Your task to perform on an android device: install app "Google Duo" Image 0: 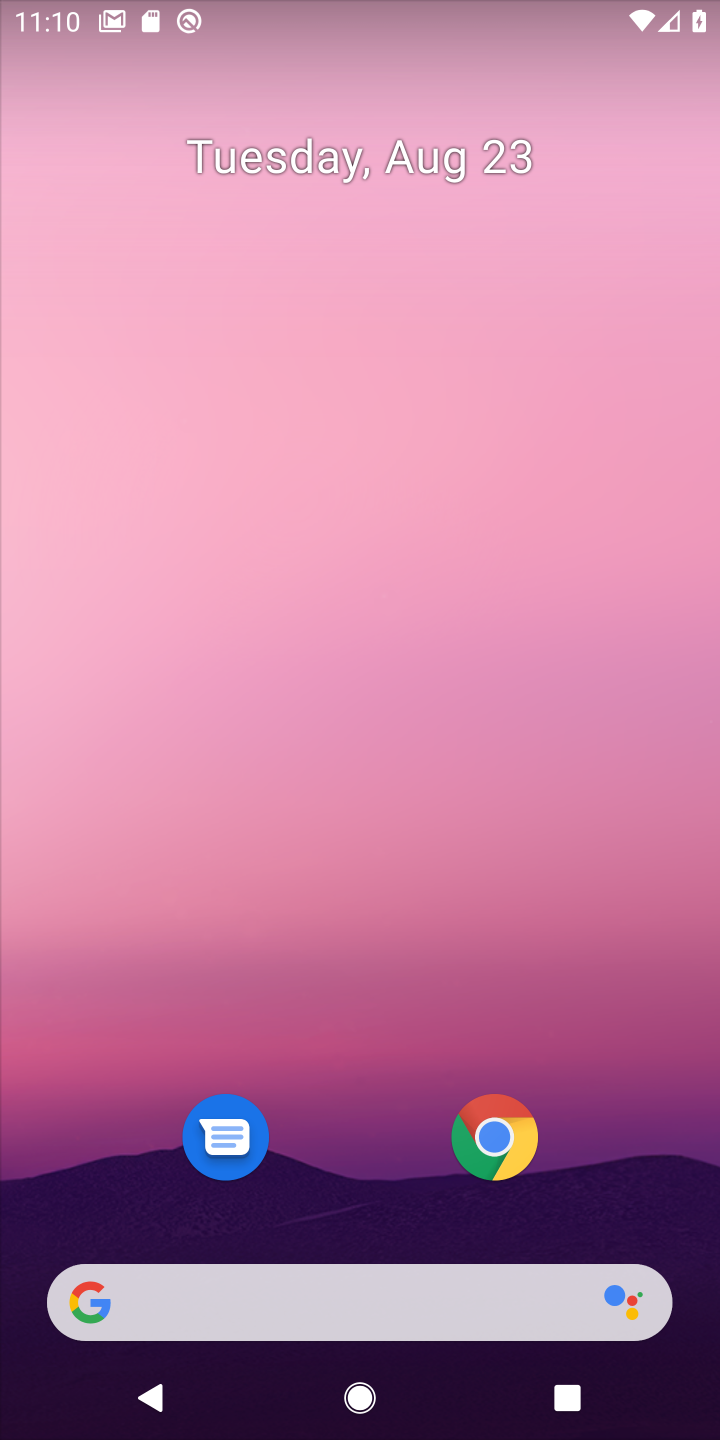
Step 0: press home button
Your task to perform on an android device: install app "Google Duo" Image 1: 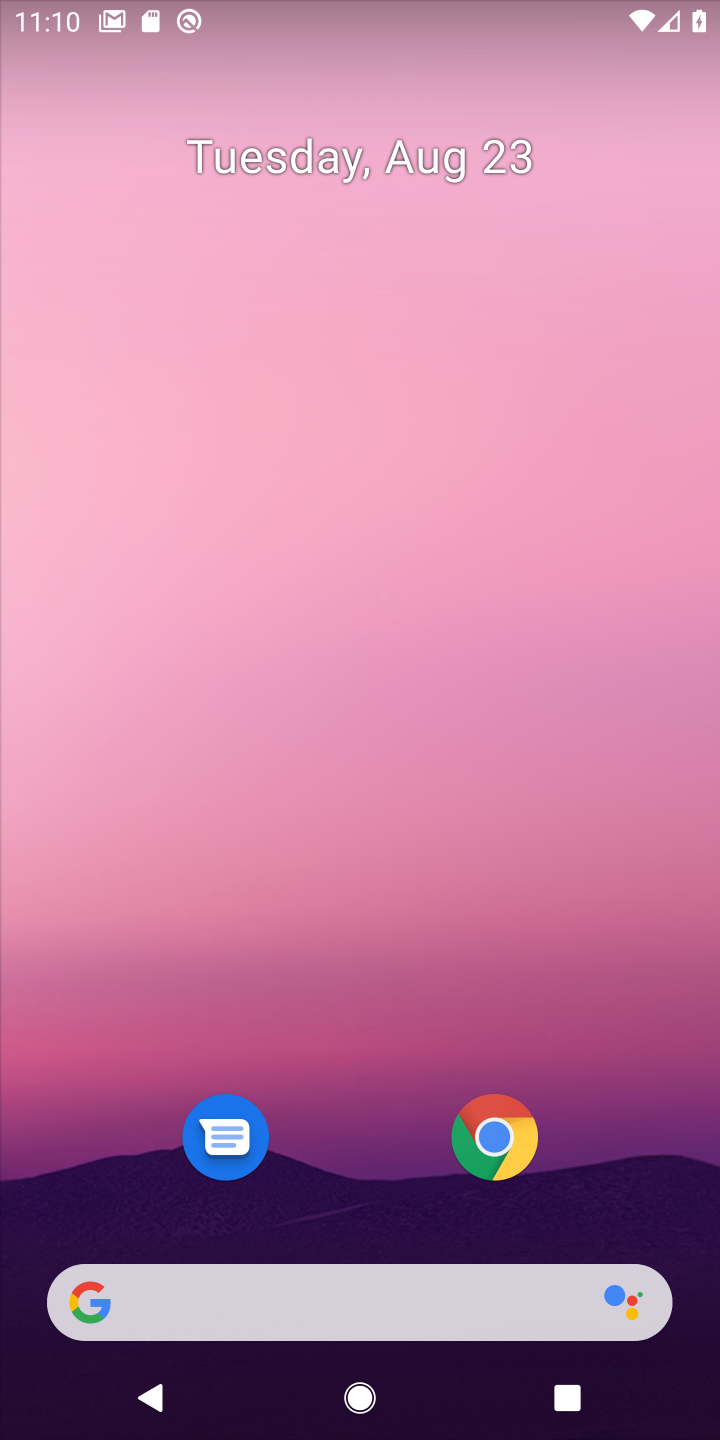
Step 1: drag from (363, 1117) to (415, 422)
Your task to perform on an android device: install app "Google Duo" Image 2: 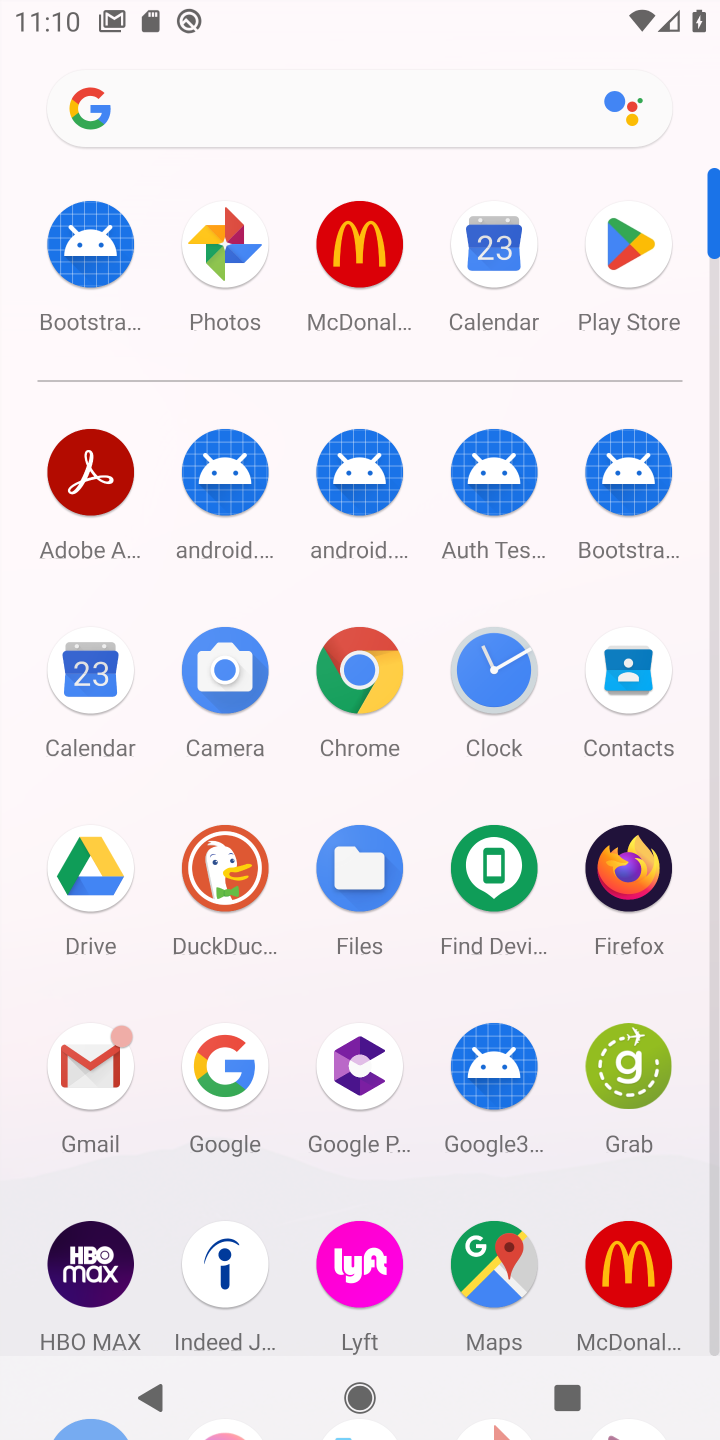
Step 2: click (642, 279)
Your task to perform on an android device: install app "Google Duo" Image 3: 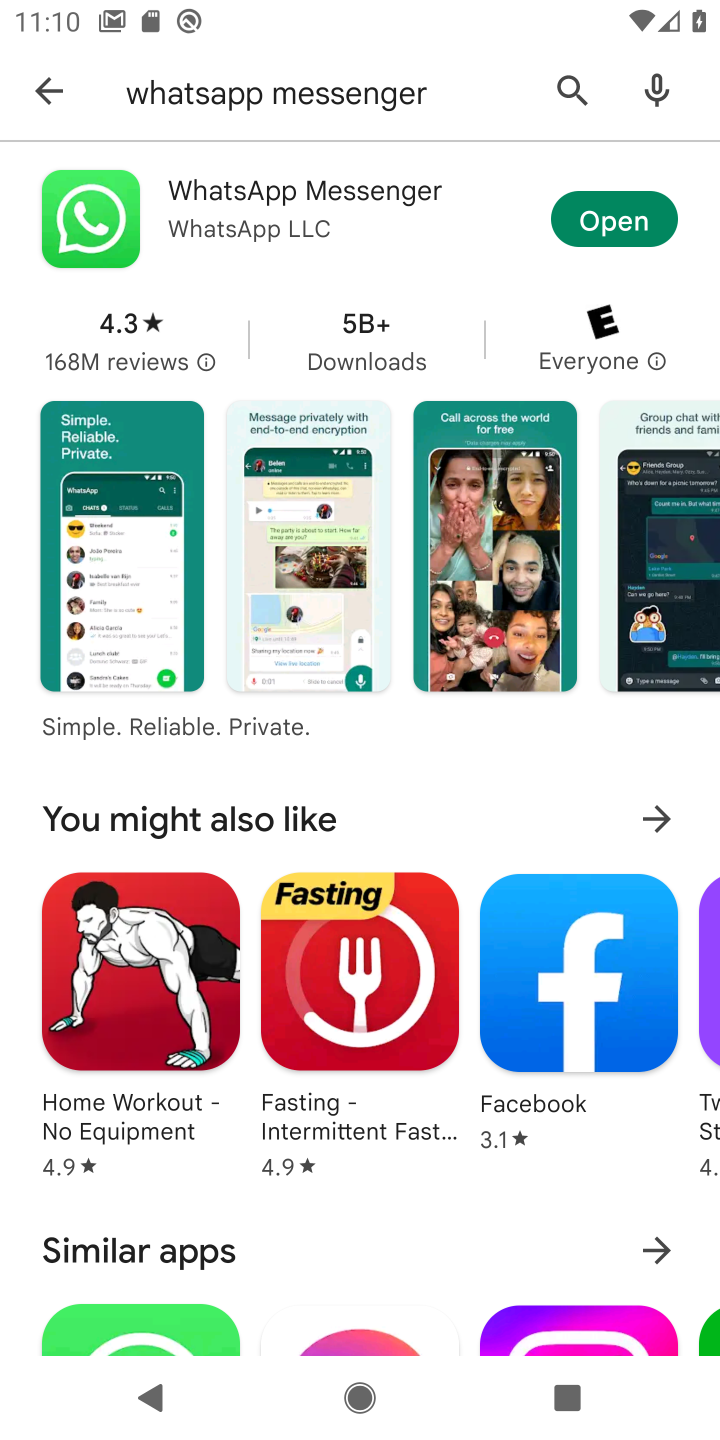
Step 3: click (223, 104)
Your task to perform on an android device: install app "Google Duo" Image 4: 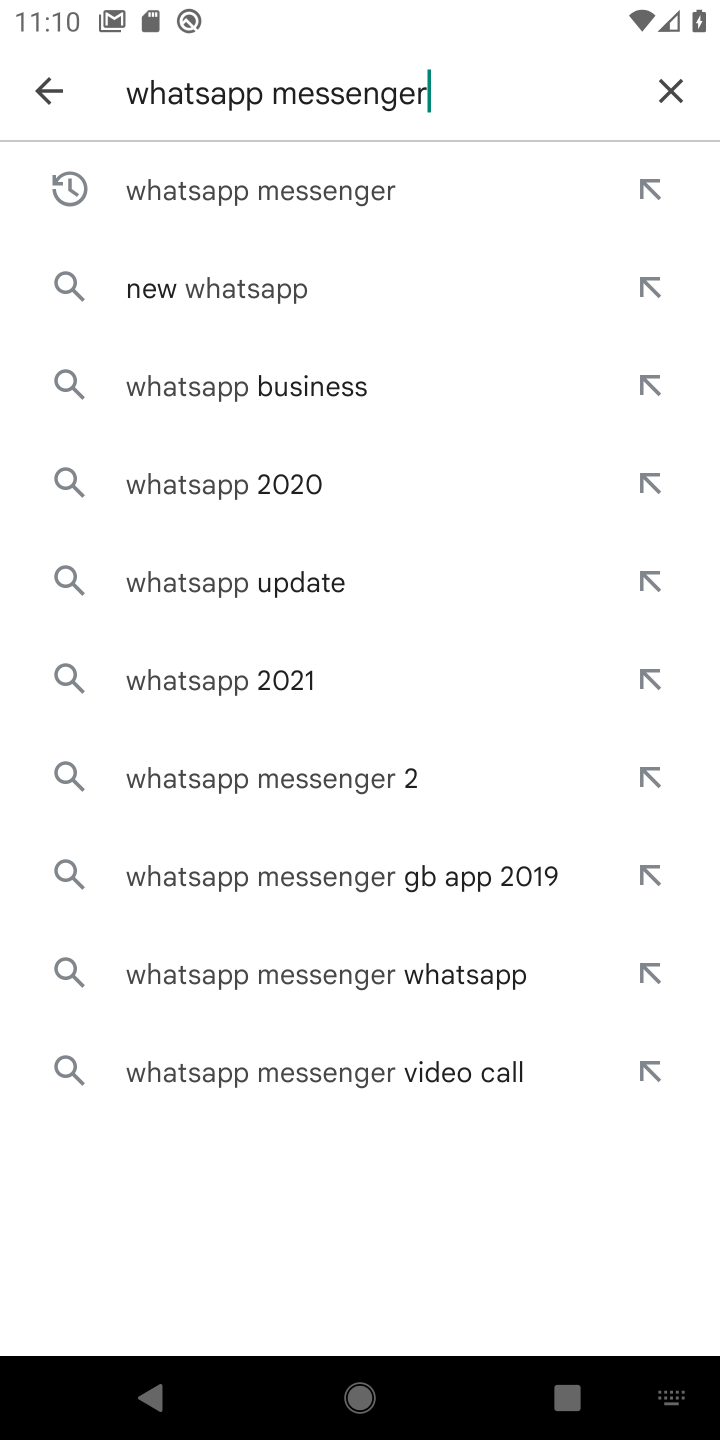
Step 4: click (676, 77)
Your task to perform on an android device: install app "Google Duo" Image 5: 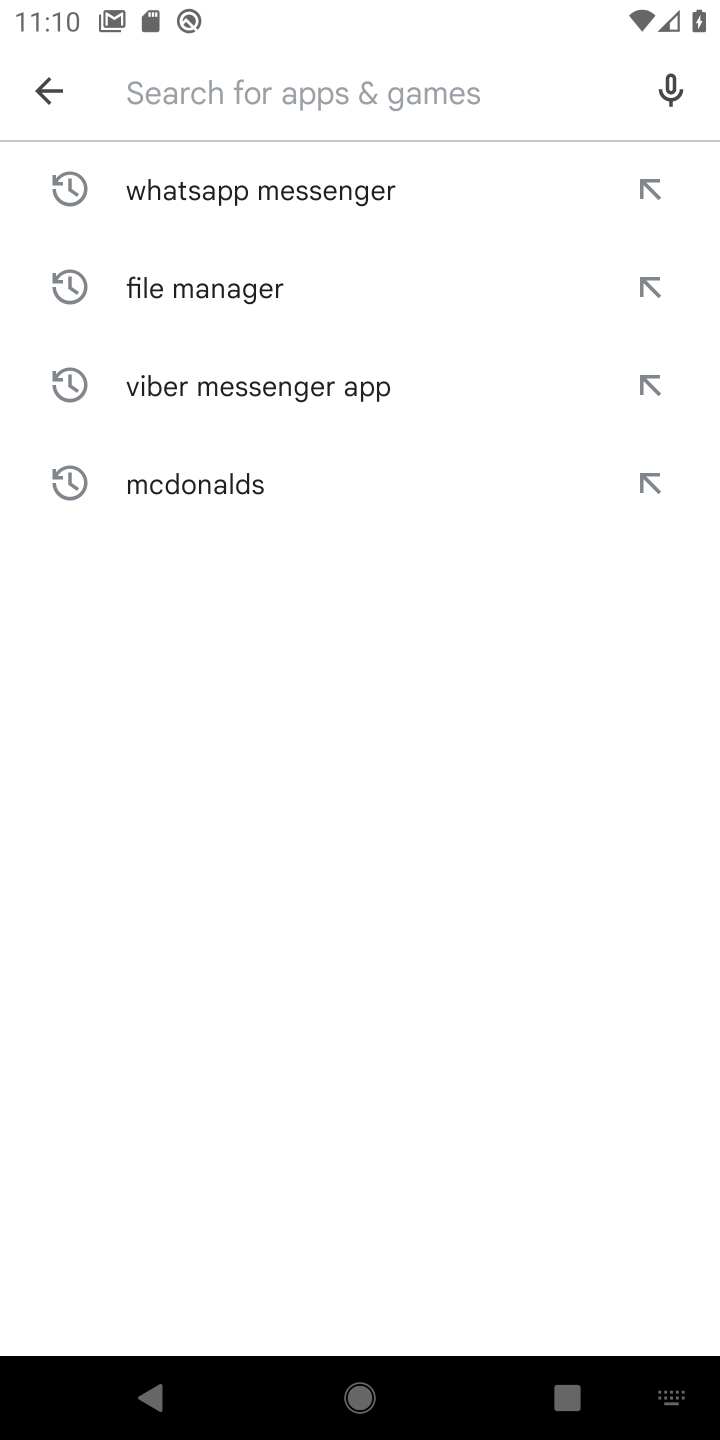
Step 5: type "google duo"
Your task to perform on an android device: install app "Google Duo" Image 6: 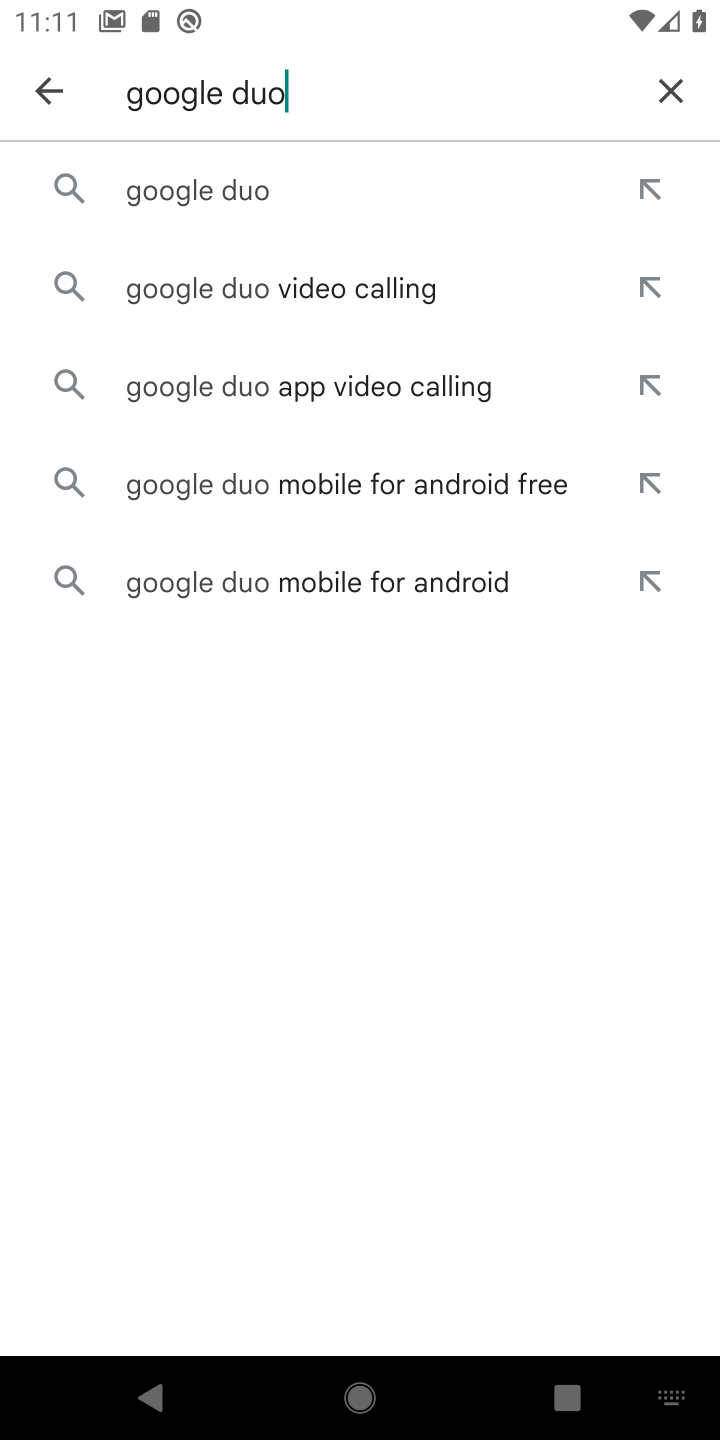
Step 6: click (236, 205)
Your task to perform on an android device: install app "Google Duo" Image 7: 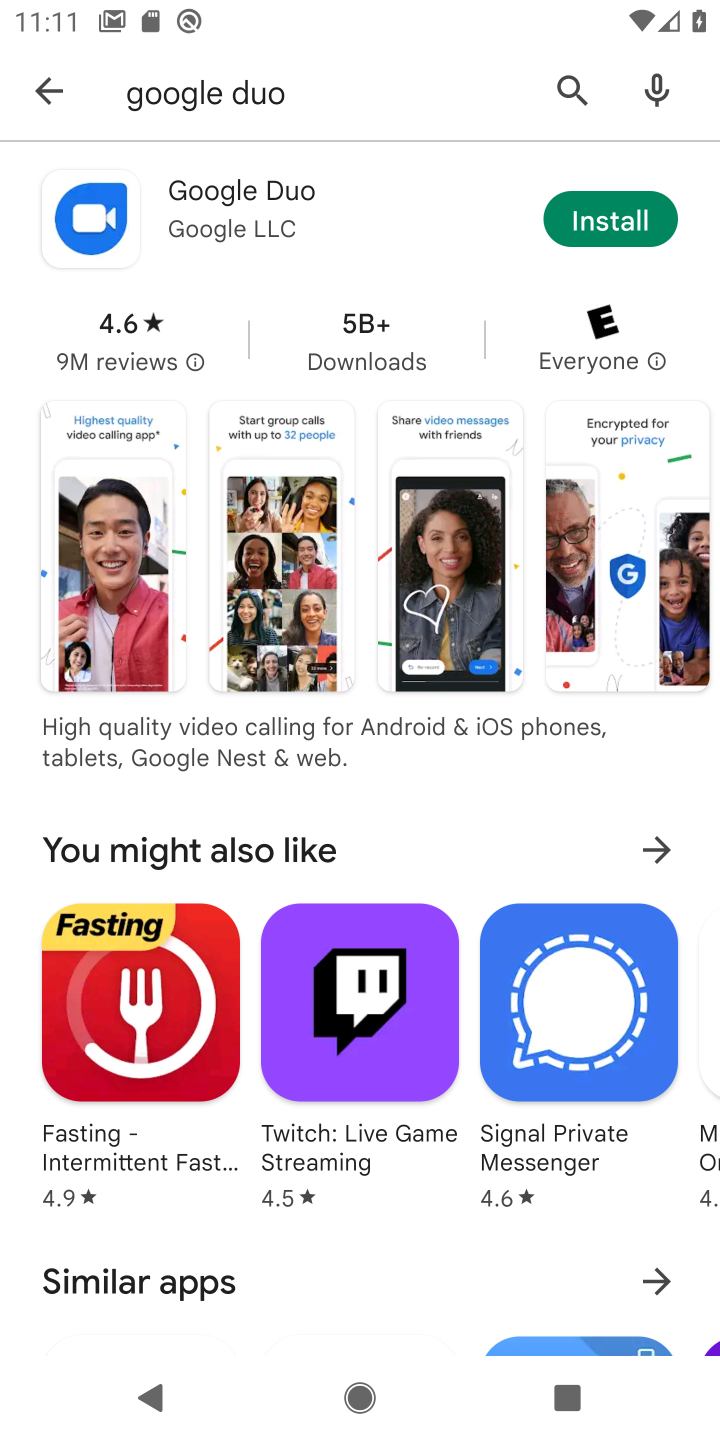
Step 7: click (621, 223)
Your task to perform on an android device: install app "Google Duo" Image 8: 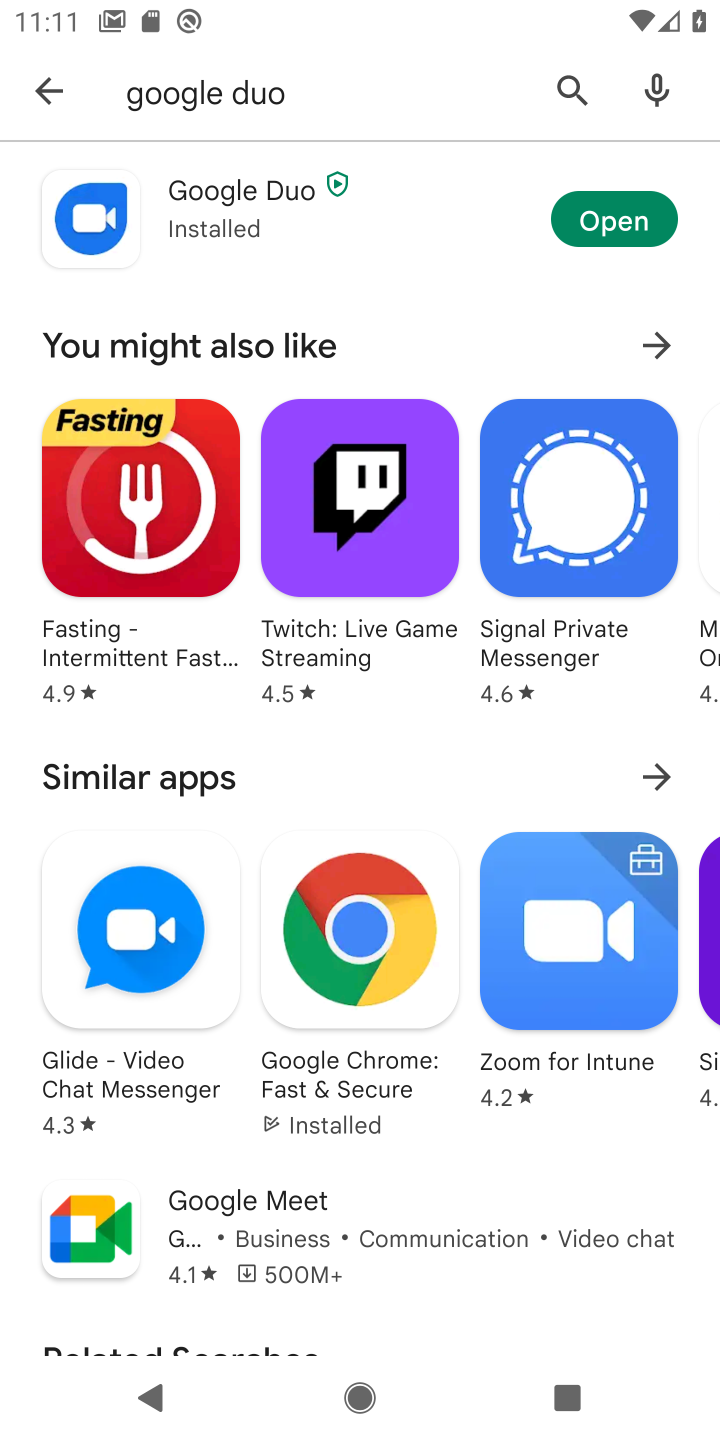
Step 8: task complete